Your task to perform on an android device: Open Amazon Image 0: 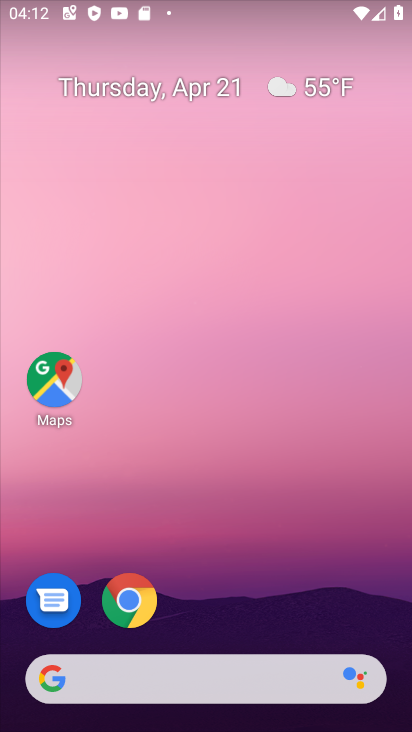
Step 0: click (127, 609)
Your task to perform on an android device: Open Amazon Image 1: 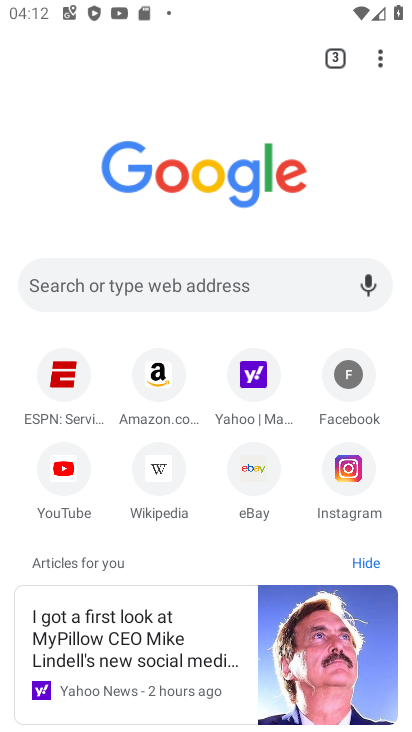
Step 1: click (154, 379)
Your task to perform on an android device: Open Amazon Image 2: 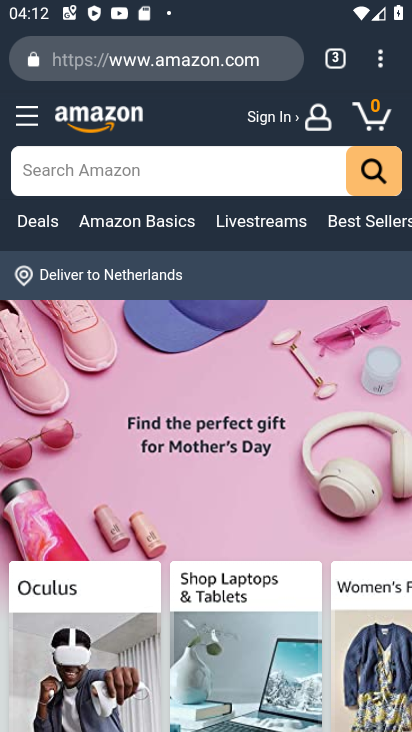
Step 2: task complete